Your task to perform on an android device: Do I have any events this weekend? Image 0: 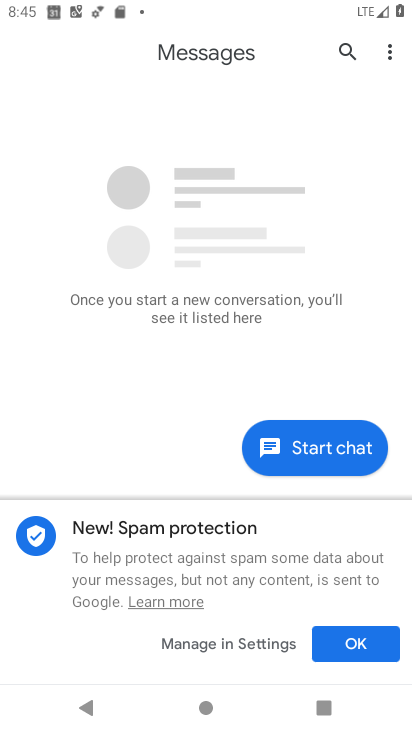
Step 0: press home button
Your task to perform on an android device: Do I have any events this weekend? Image 1: 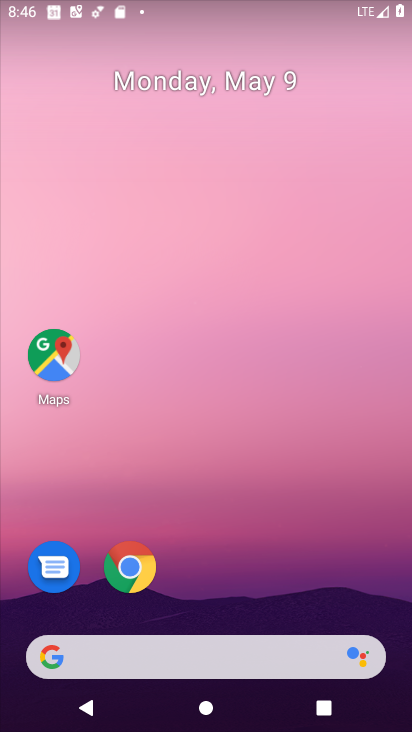
Step 1: drag from (163, 617) to (325, 163)
Your task to perform on an android device: Do I have any events this weekend? Image 2: 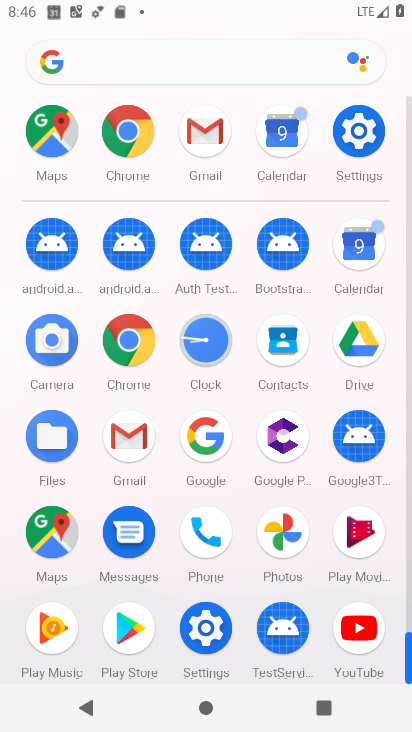
Step 2: click (355, 245)
Your task to perform on an android device: Do I have any events this weekend? Image 3: 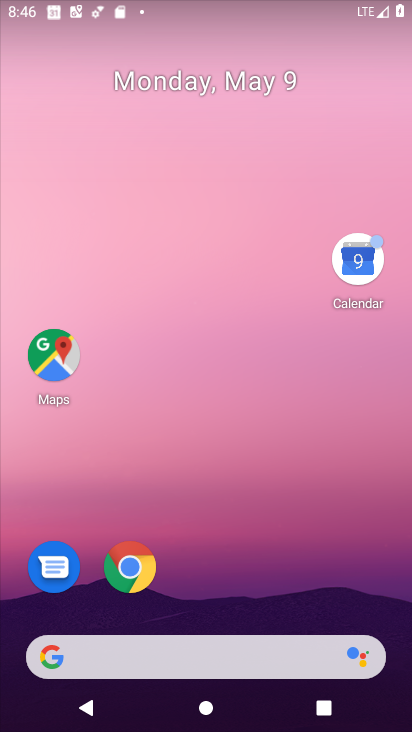
Step 3: click (370, 245)
Your task to perform on an android device: Do I have any events this weekend? Image 4: 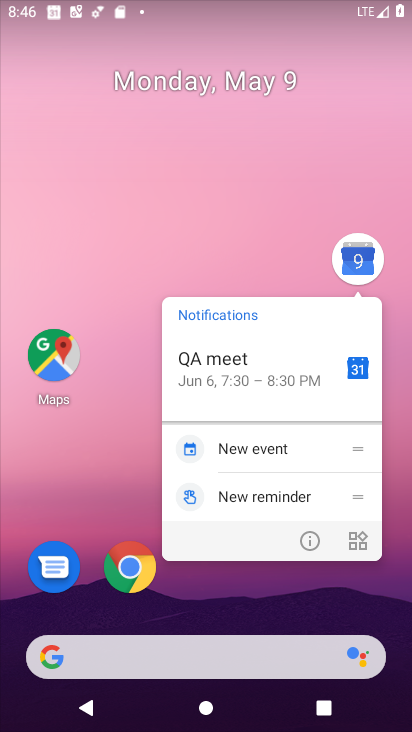
Step 4: click (290, 541)
Your task to perform on an android device: Do I have any events this weekend? Image 5: 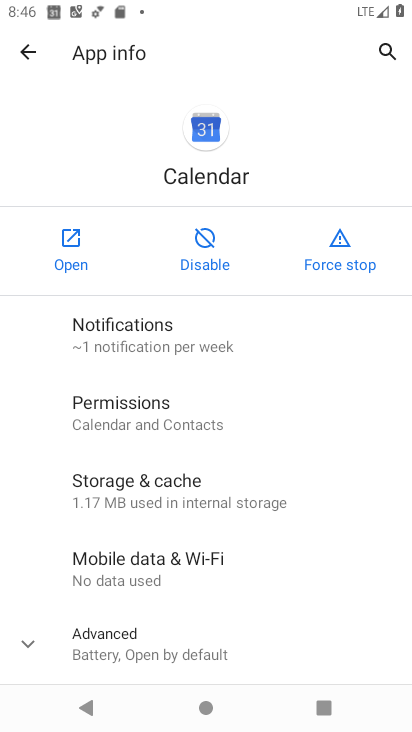
Step 5: click (62, 233)
Your task to perform on an android device: Do I have any events this weekend? Image 6: 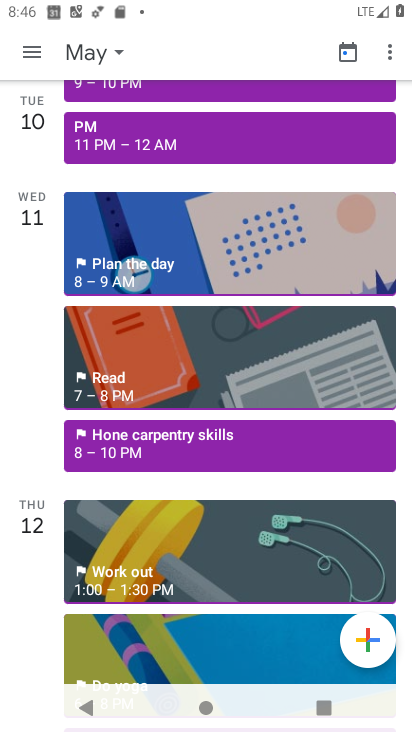
Step 6: drag from (260, 212) to (266, 721)
Your task to perform on an android device: Do I have any events this weekend? Image 7: 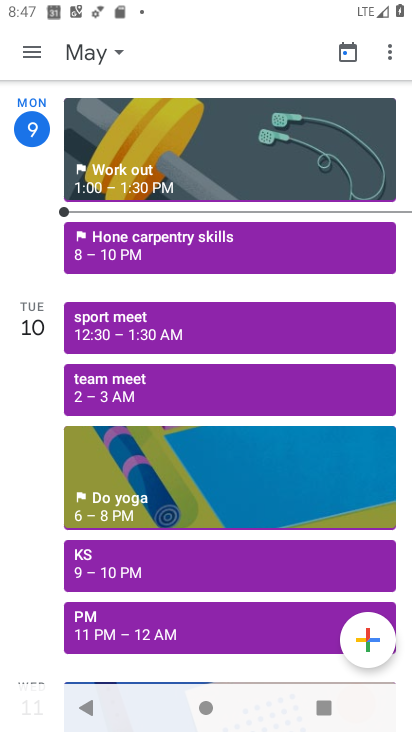
Step 7: click (112, 41)
Your task to perform on an android device: Do I have any events this weekend? Image 8: 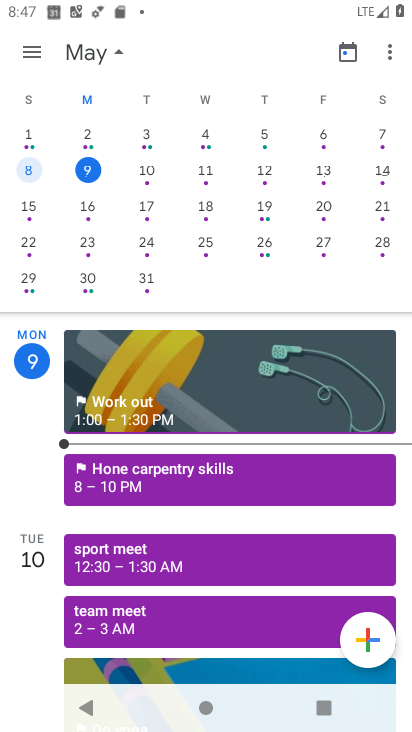
Step 8: click (200, 175)
Your task to perform on an android device: Do I have any events this weekend? Image 9: 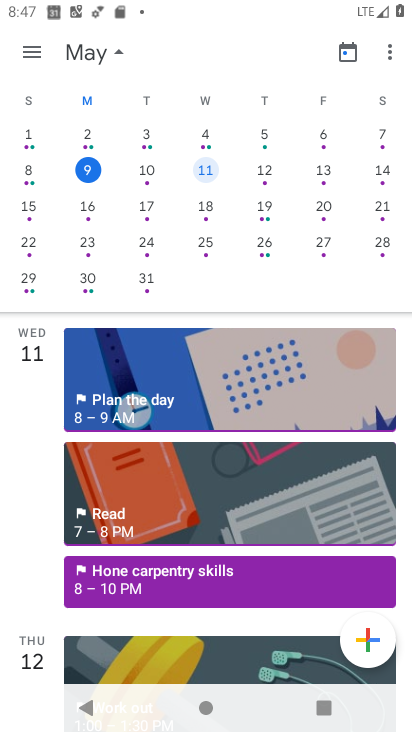
Step 9: click (317, 163)
Your task to perform on an android device: Do I have any events this weekend? Image 10: 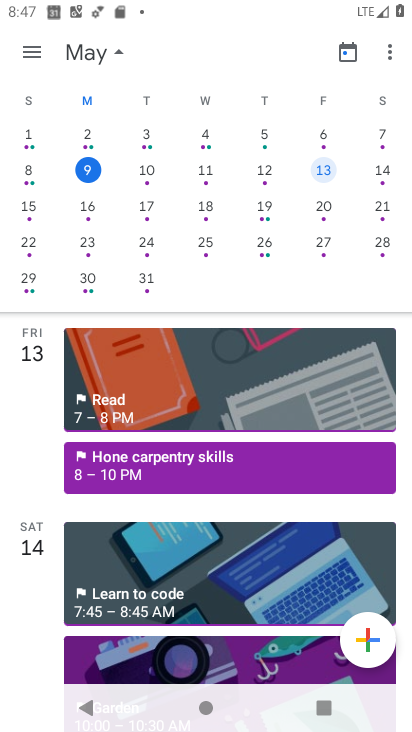
Step 10: task complete